Your task to perform on an android device: Open my contact list Image 0: 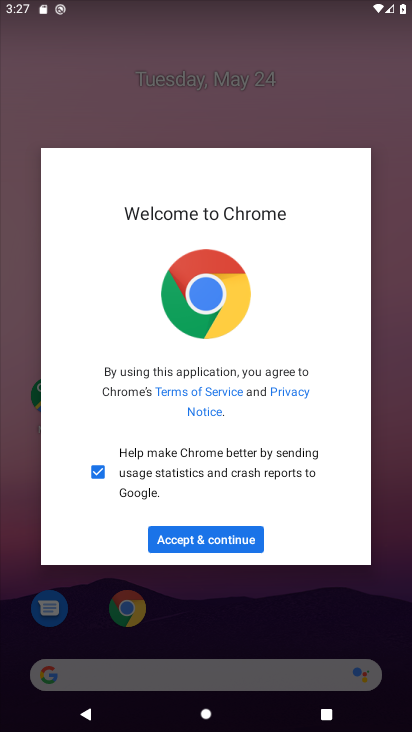
Step 0: press home button
Your task to perform on an android device: Open my contact list Image 1: 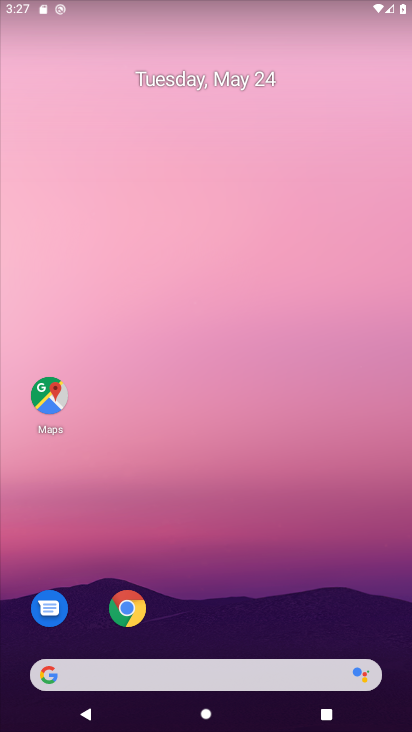
Step 1: drag from (148, 593) to (261, 298)
Your task to perform on an android device: Open my contact list Image 2: 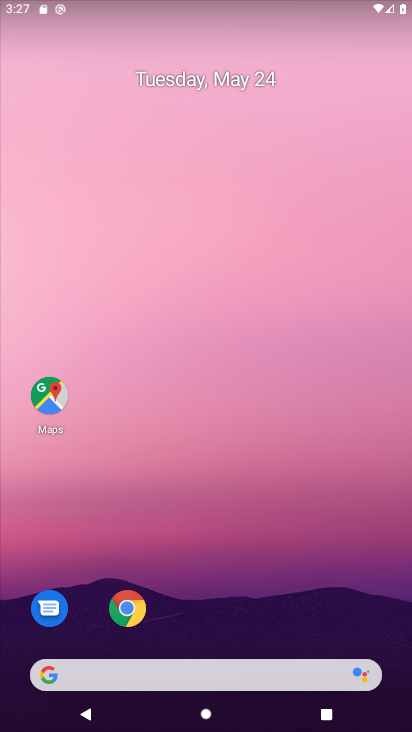
Step 2: drag from (162, 632) to (304, 153)
Your task to perform on an android device: Open my contact list Image 3: 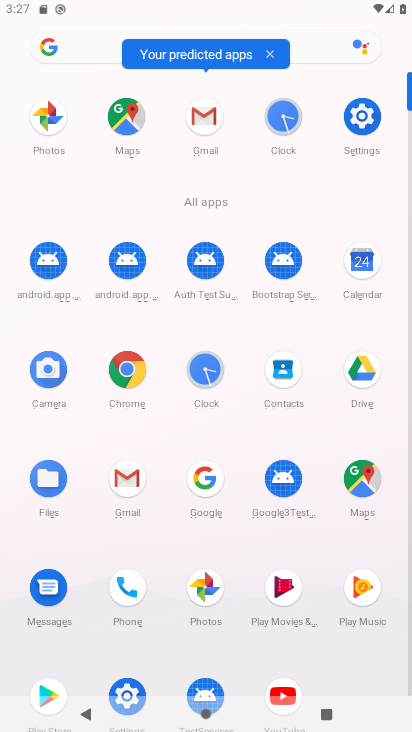
Step 3: click (290, 380)
Your task to perform on an android device: Open my contact list Image 4: 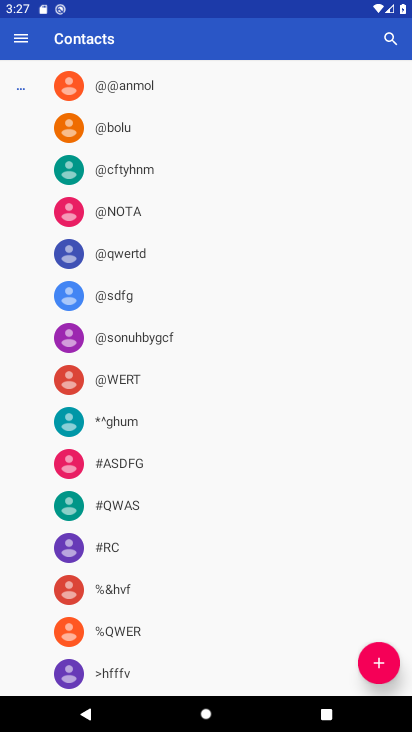
Step 4: task complete